Your task to perform on an android device: turn off location history Image 0: 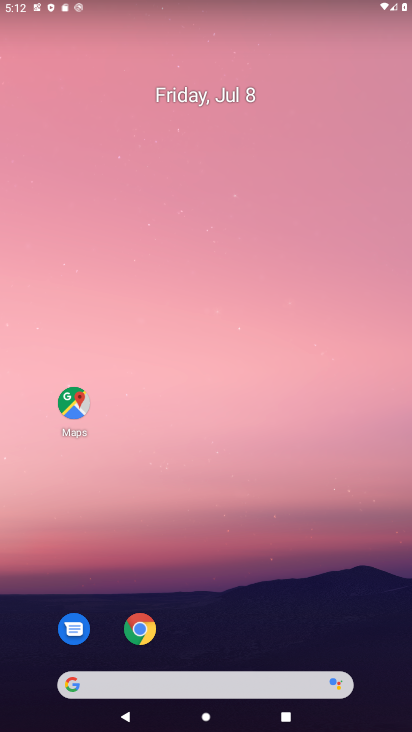
Step 0: press home button
Your task to perform on an android device: turn off location history Image 1: 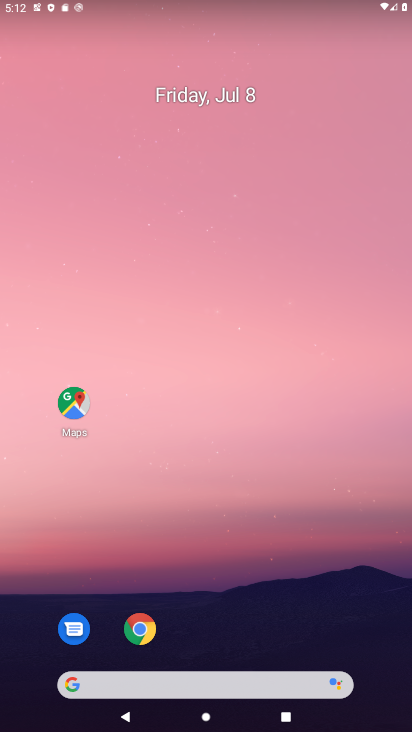
Step 1: drag from (256, 650) to (182, 192)
Your task to perform on an android device: turn off location history Image 2: 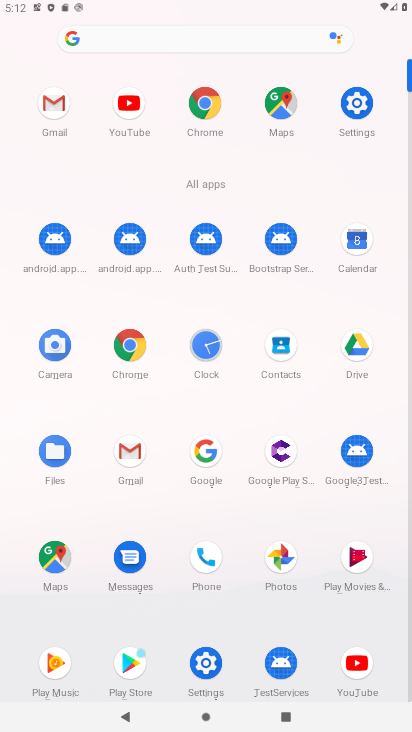
Step 2: click (369, 113)
Your task to perform on an android device: turn off location history Image 3: 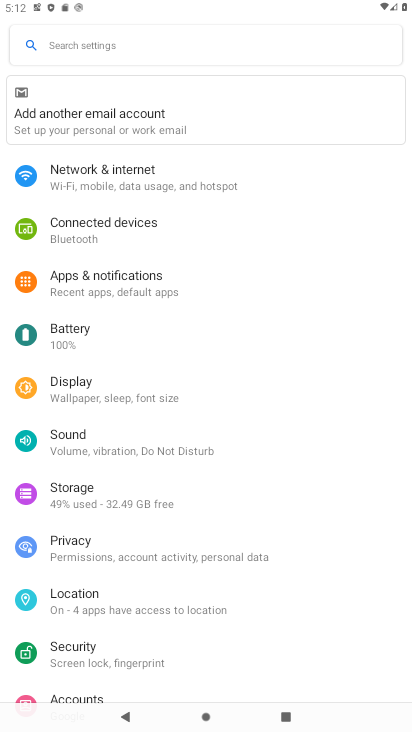
Step 3: click (91, 605)
Your task to perform on an android device: turn off location history Image 4: 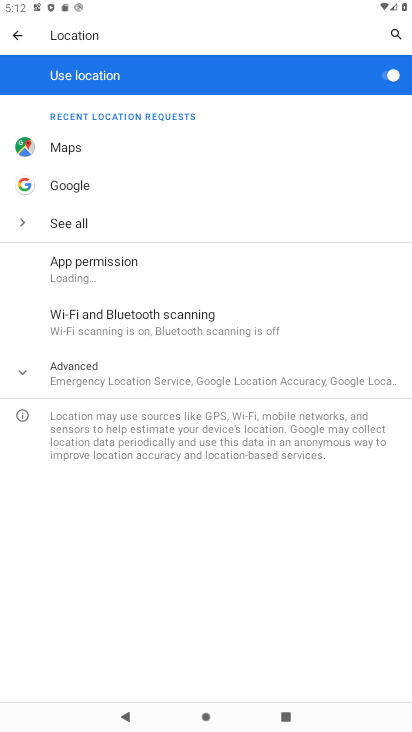
Step 4: click (101, 382)
Your task to perform on an android device: turn off location history Image 5: 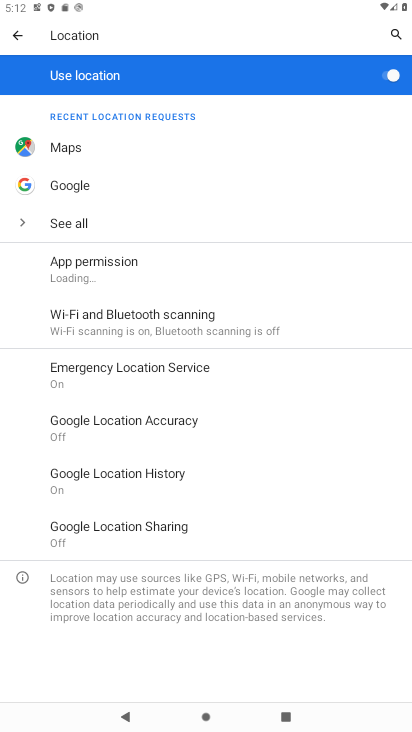
Step 5: click (153, 473)
Your task to perform on an android device: turn off location history Image 6: 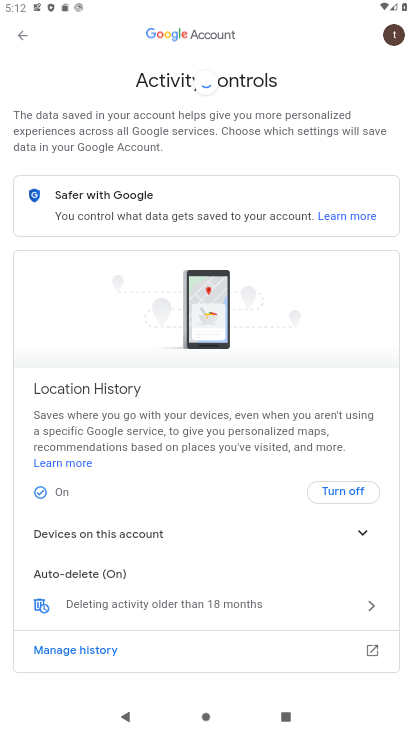
Step 6: click (345, 487)
Your task to perform on an android device: turn off location history Image 7: 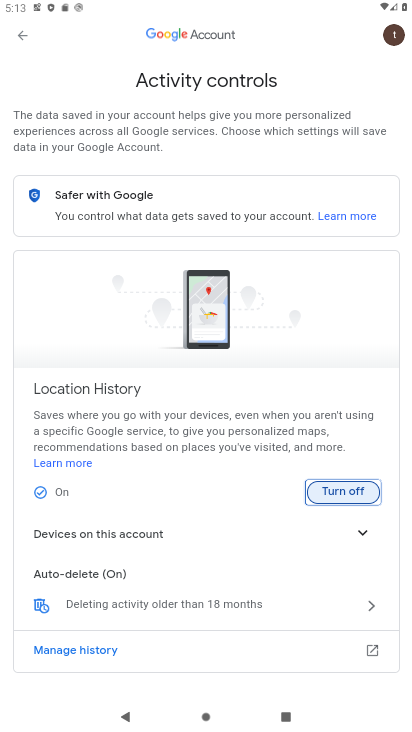
Step 7: click (37, 492)
Your task to perform on an android device: turn off location history Image 8: 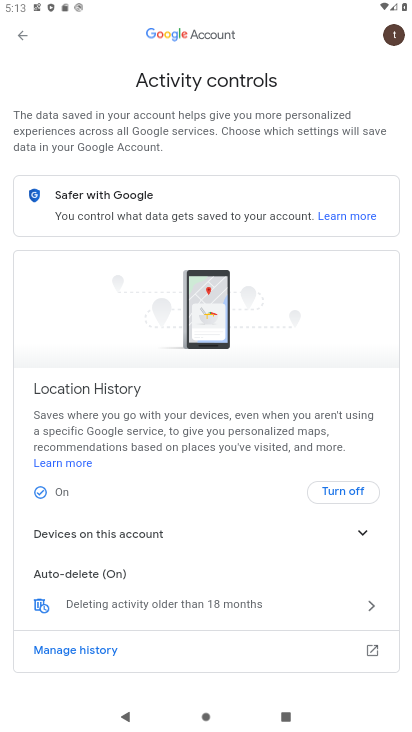
Step 8: click (344, 495)
Your task to perform on an android device: turn off location history Image 9: 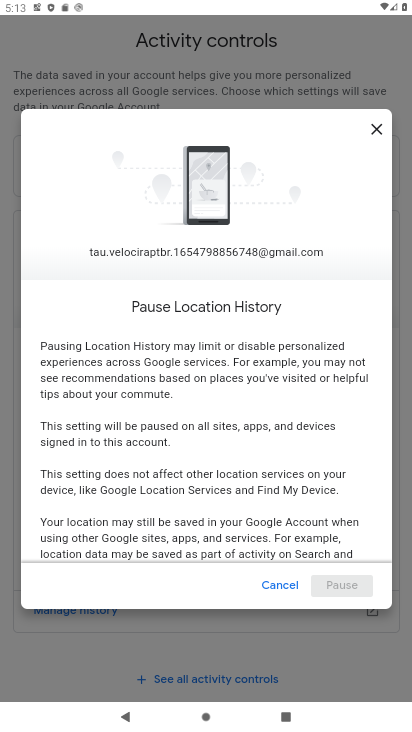
Step 9: click (347, 585)
Your task to perform on an android device: turn off location history Image 10: 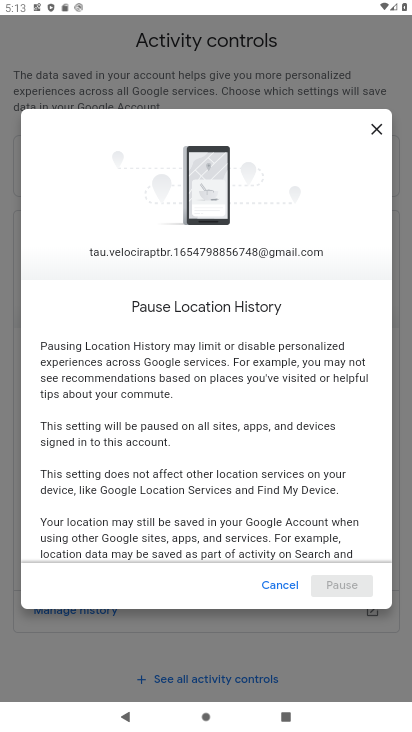
Step 10: click (275, 586)
Your task to perform on an android device: turn off location history Image 11: 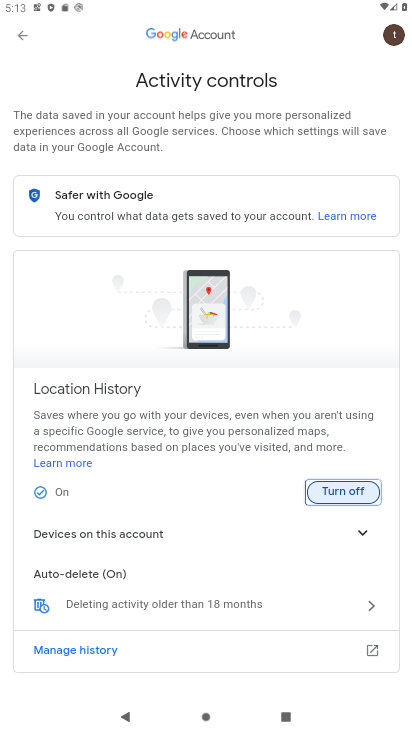
Step 11: click (348, 493)
Your task to perform on an android device: turn off location history Image 12: 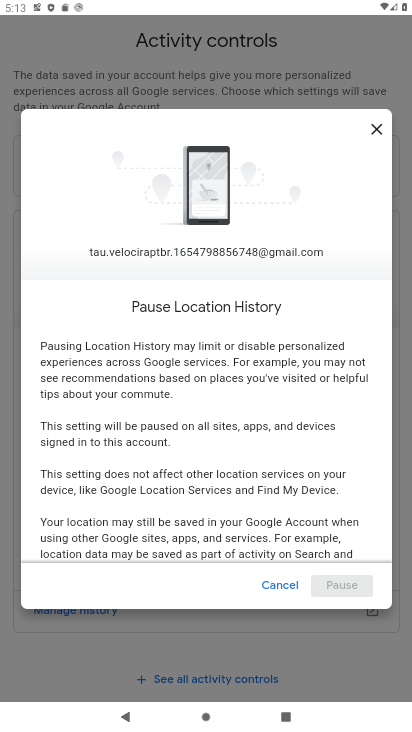
Step 12: click (347, 590)
Your task to perform on an android device: turn off location history Image 13: 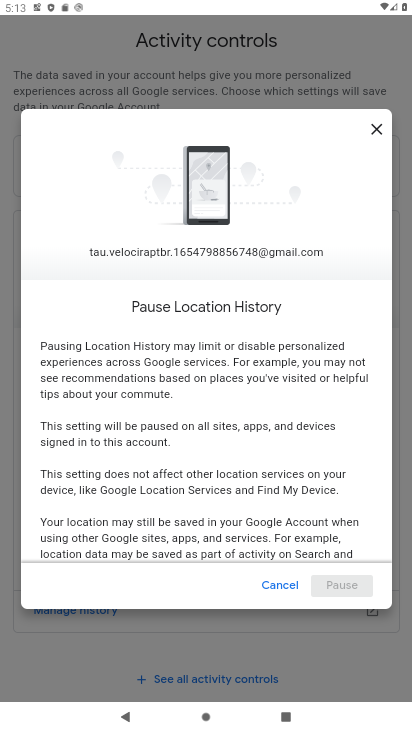
Step 13: click (351, 584)
Your task to perform on an android device: turn off location history Image 14: 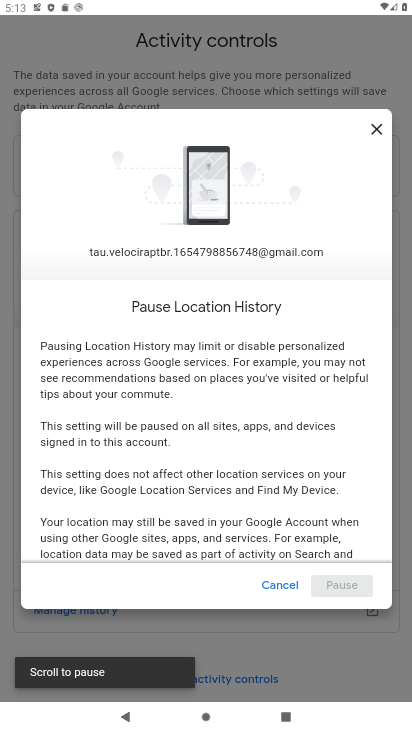
Step 14: click (377, 122)
Your task to perform on an android device: turn off location history Image 15: 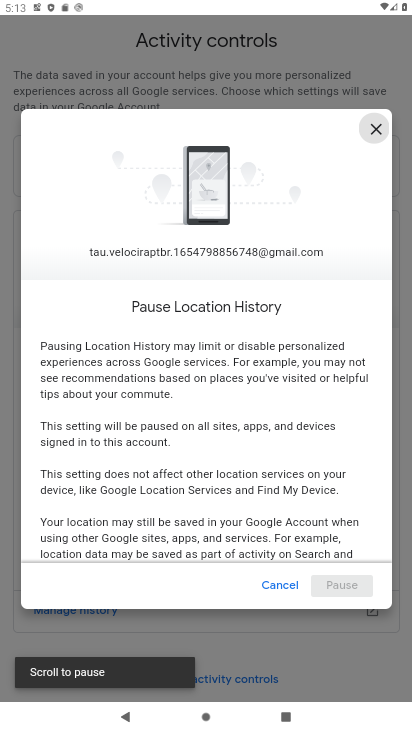
Step 15: click (337, 592)
Your task to perform on an android device: turn off location history Image 16: 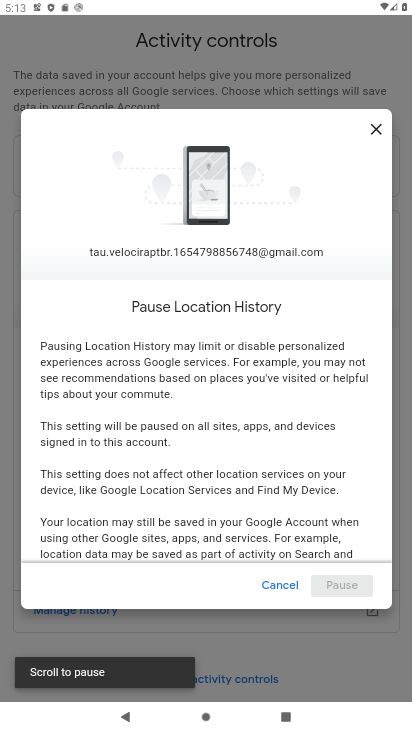
Step 16: drag from (290, 499) to (240, 108)
Your task to perform on an android device: turn off location history Image 17: 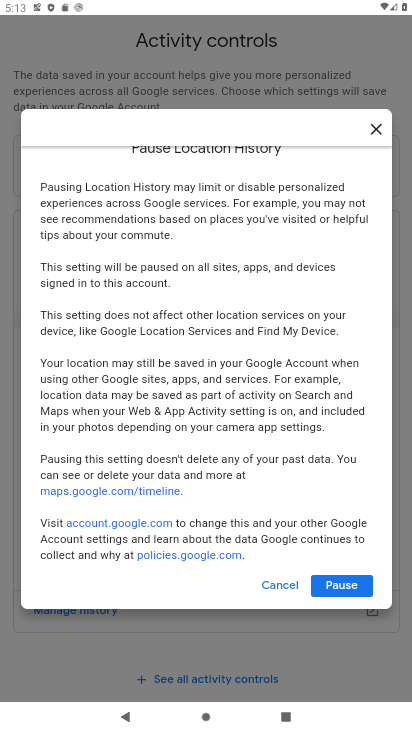
Step 17: click (330, 586)
Your task to perform on an android device: turn off location history Image 18: 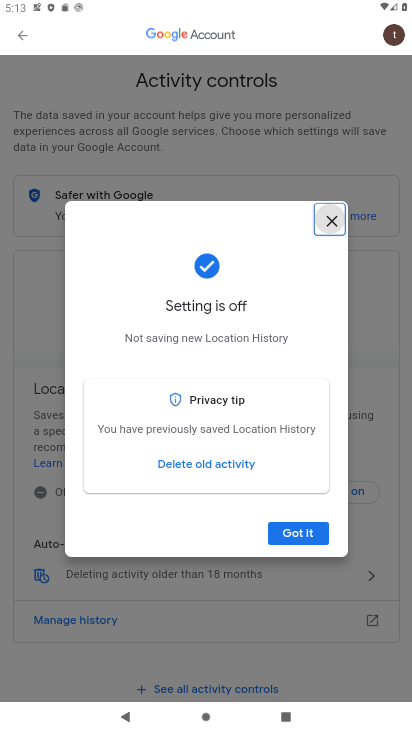
Step 18: click (290, 532)
Your task to perform on an android device: turn off location history Image 19: 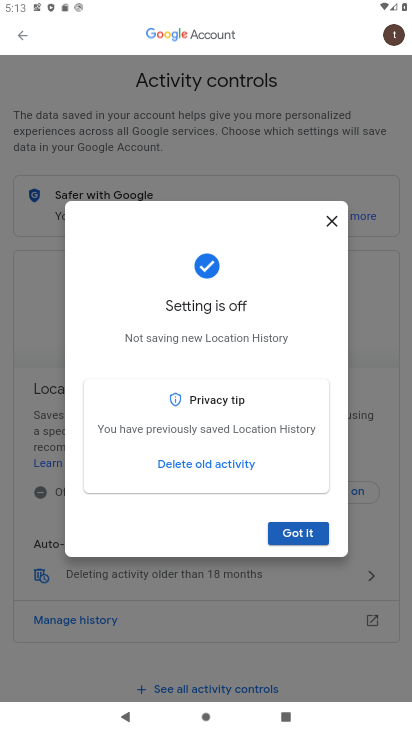
Step 19: click (290, 532)
Your task to perform on an android device: turn off location history Image 20: 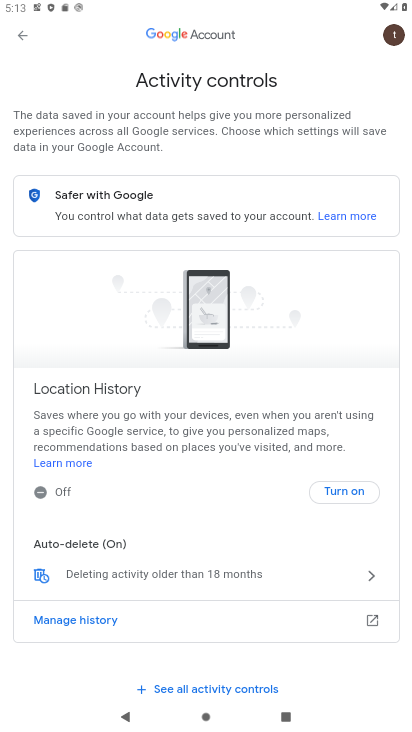
Step 20: task complete